Your task to perform on an android device: turn off location history Image 0: 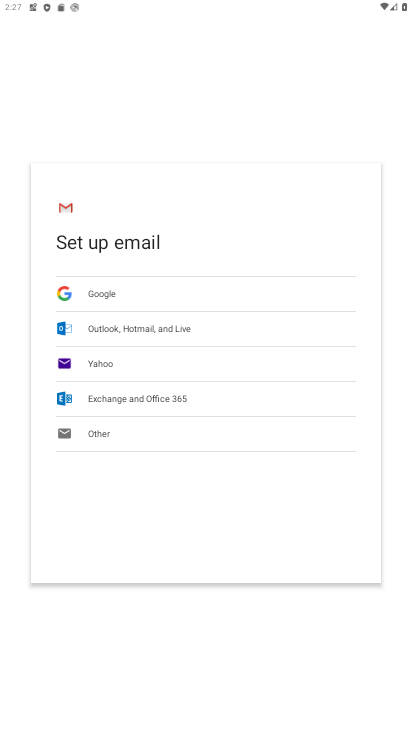
Step 0: press home button
Your task to perform on an android device: turn off location history Image 1: 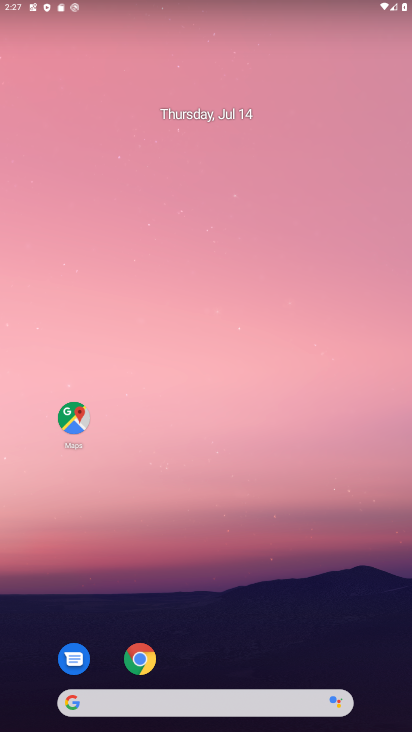
Step 1: drag from (207, 632) to (405, 220)
Your task to perform on an android device: turn off location history Image 2: 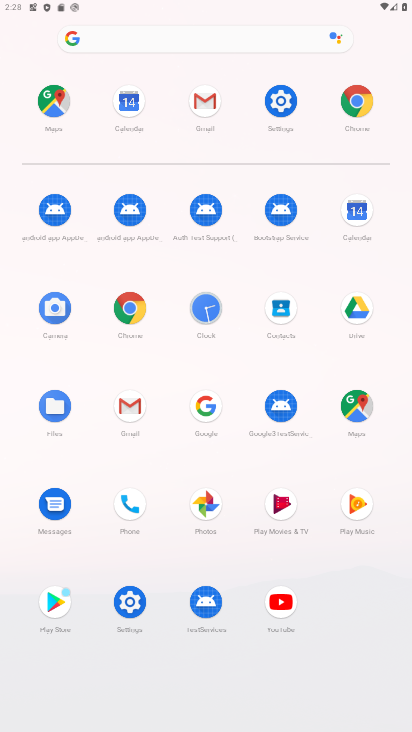
Step 2: click (292, 112)
Your task to perform on an android device: turn off location history Image 3: 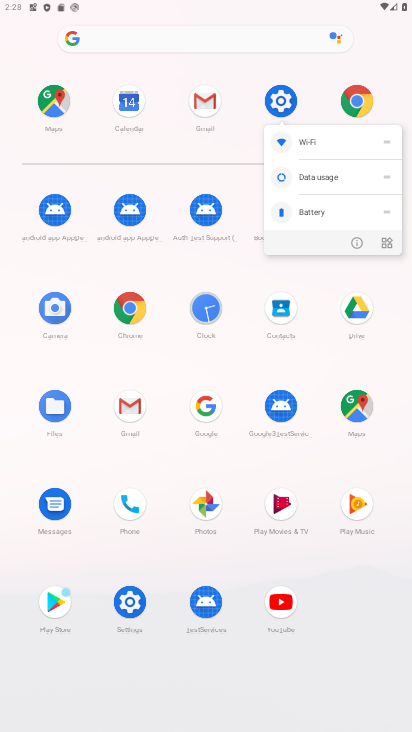
Step 3: click (278, 88)
Your task to perform on an android device: turn off location history Image 4: 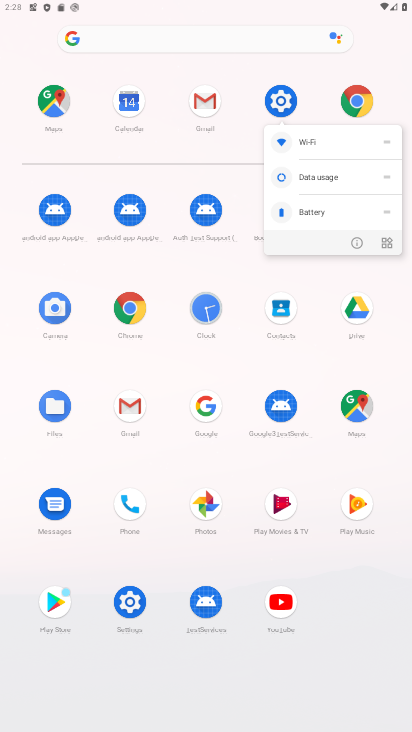
Step 4: click (281, 94)
Your task to perform on an android device: turn off location history Image 5: 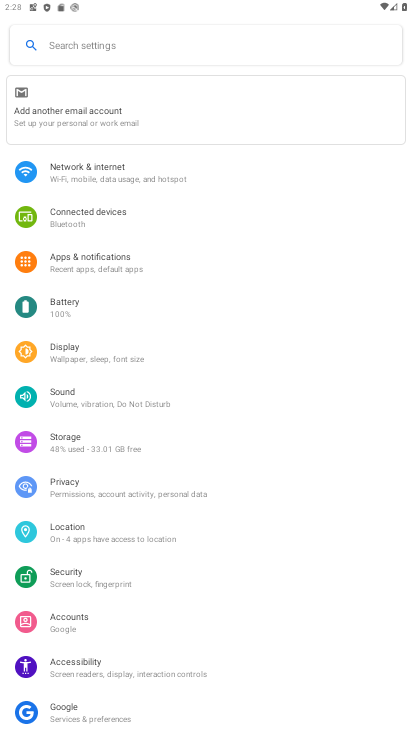
Step 5: click (86, 531)
Your task to perform on an android device: turn off location history Image 6: 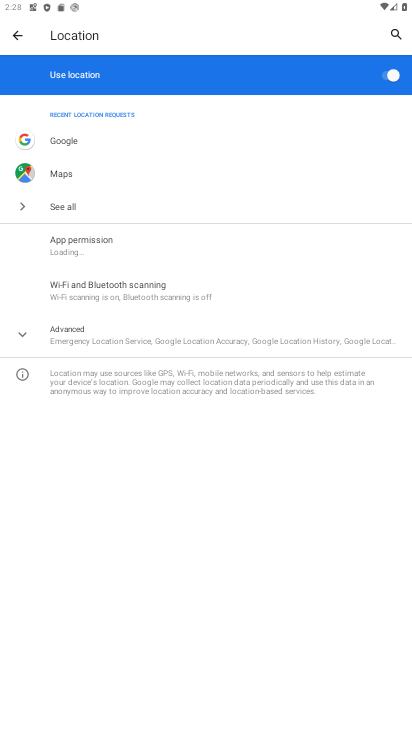
Step 6: click (114, 342)
Your task to perform on an android device: turn off location history Image 7: 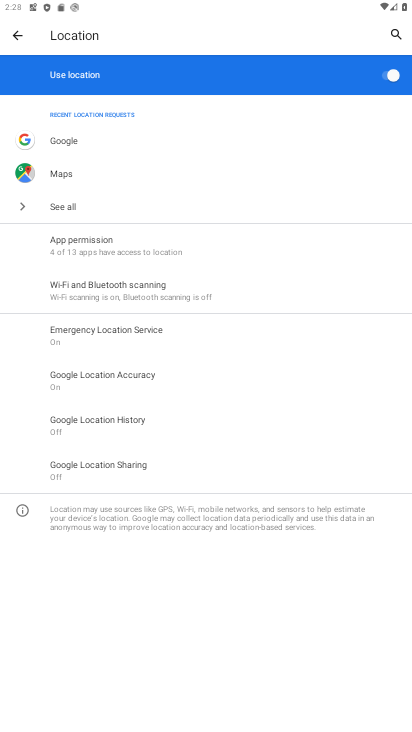
Step 7: click (143, 418)
Your task to perform on an android device: turn off location history Image 8: 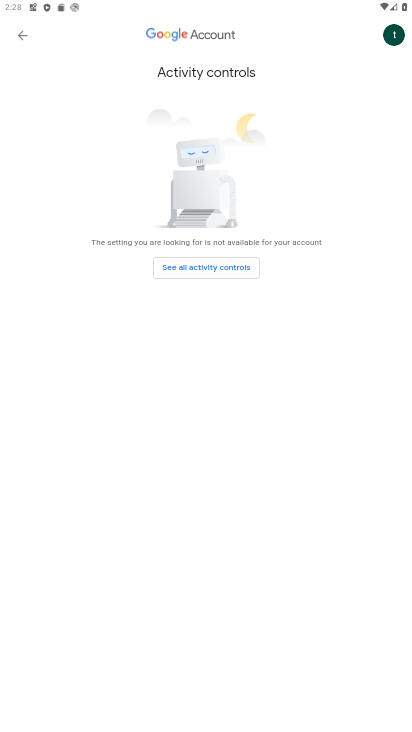
Step 8: click (204, 269)
Your task to perform on an android device: turn off location history Image 9: 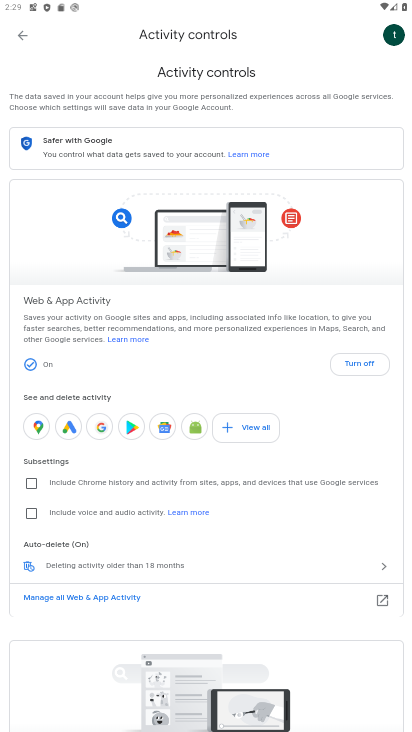
Step 9: task complete